Your task to perform on an android device: turn smart compose on in the gmail app Image 0: 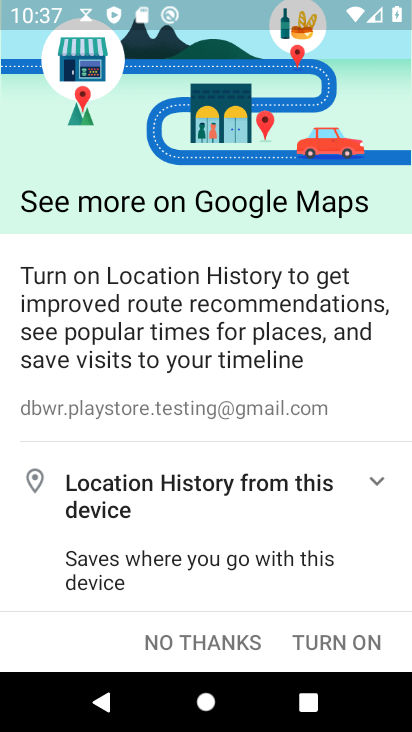
Step 0: press back button
Your task to perform on an android device: turn smart compose on in the gmail app Image 1: 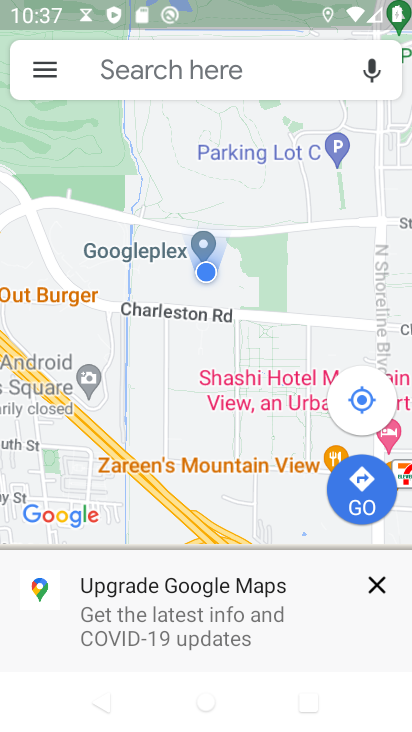
Step 1: press back button
Your task to perform on an android device: turn smart compose on in the gmail app Image 2: 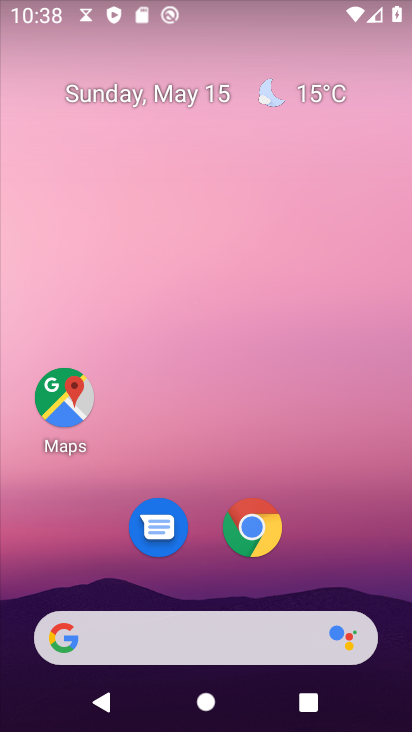
Step 2: drag from (329, 543) to (220, 39)
Your task to perform on an android device: turn smart compose on in the gmail app Image 3: 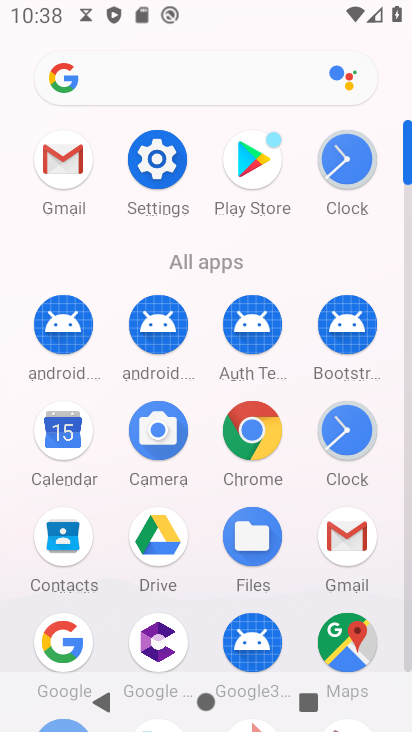
Step 3: click (58, 155)
Your task to perform on an android device: turn smart compose on in the gmail app Image 4: 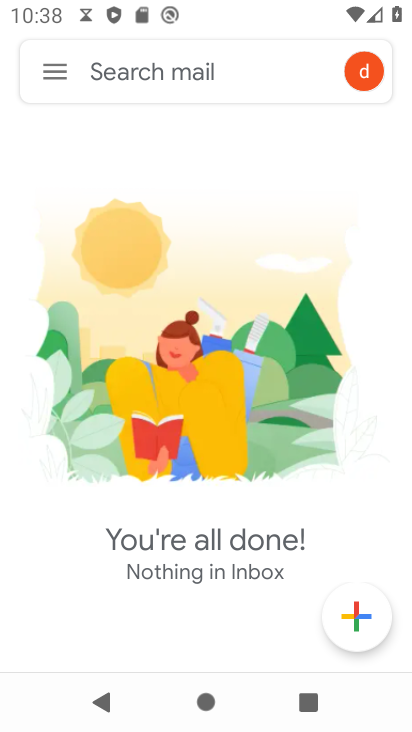
Step 4: click (56, 73)
Your task to perform on an android device: turn smart compose on in the gmail app Image 5: 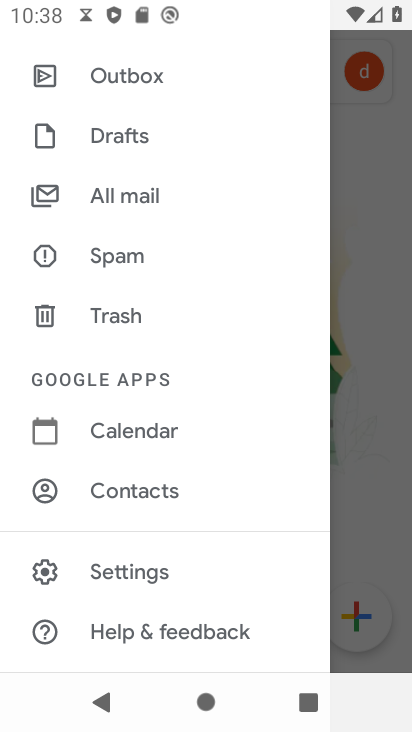
Step 5: click (147, 569)
Your task to perform on an android device: turn smart compose on in the gmail app Image 6: 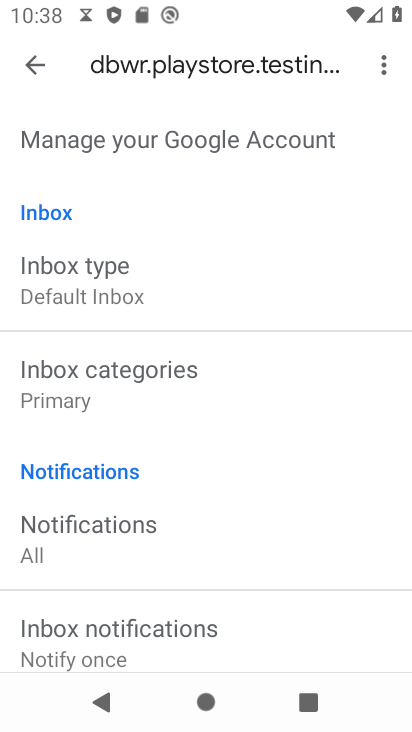
Step 6: task complete